Your task to perform on an android device: empty trash in the gmail app Image 0: 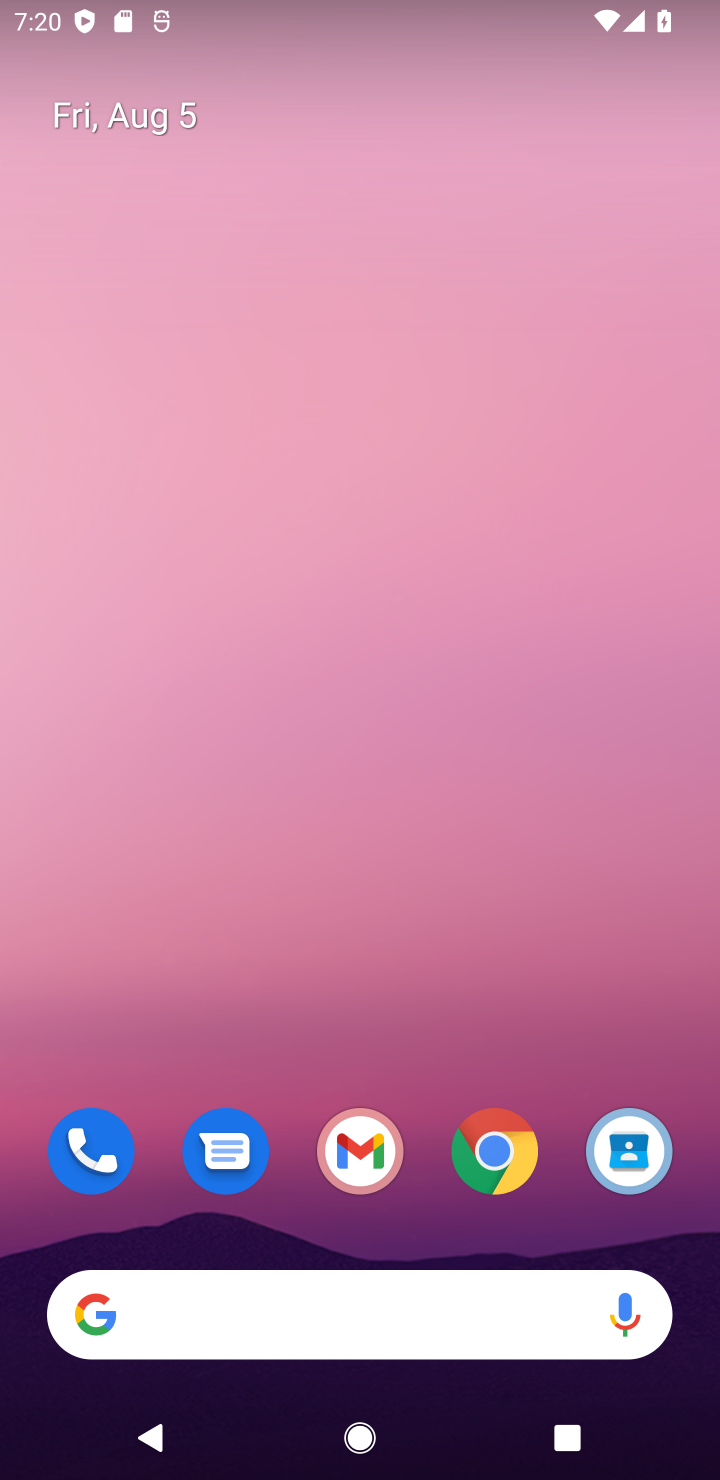
Step 0: drag from (358, 1277) to (292, 74)
Your task to perform on an android device: empty trash in the gmail app Image 1: 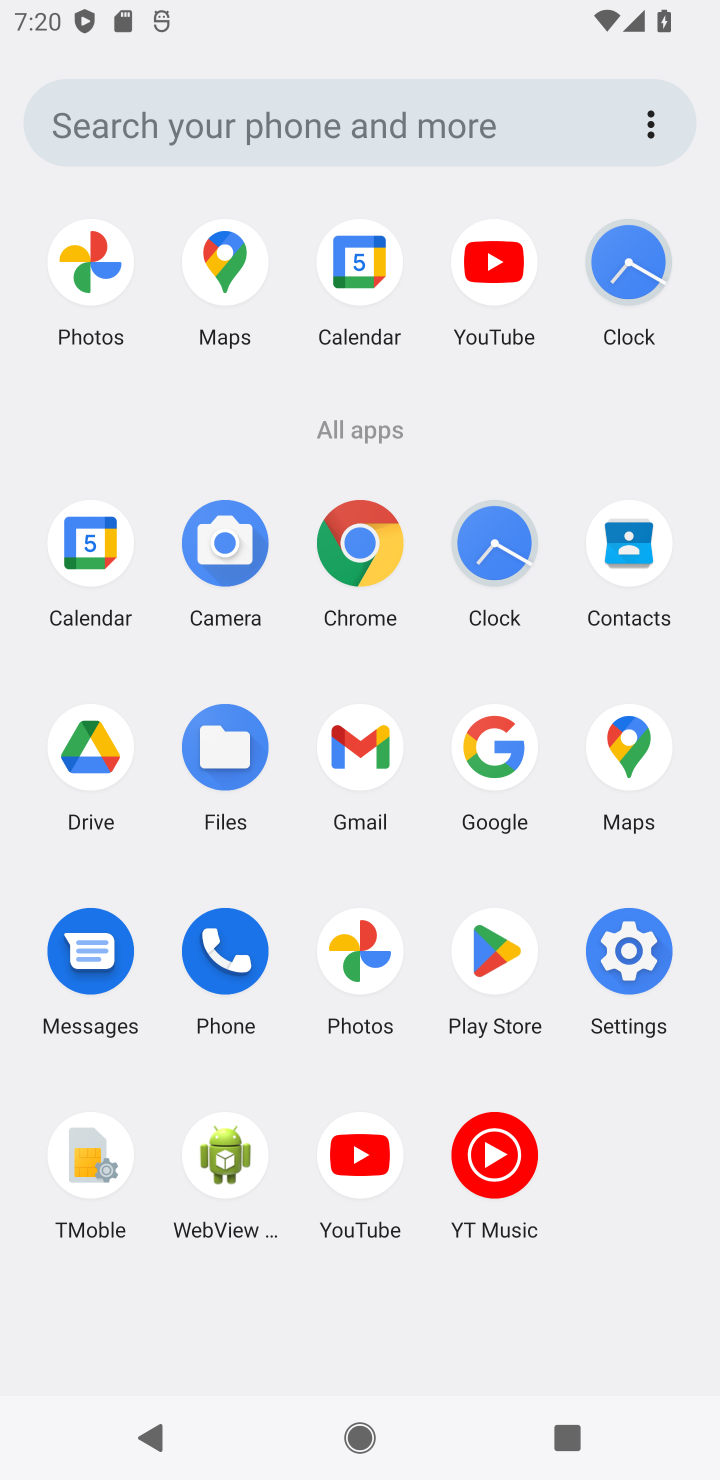
Step 1: click (364, 770)
Your task to perform on an android device: empty trash in the gmail app Image 2: 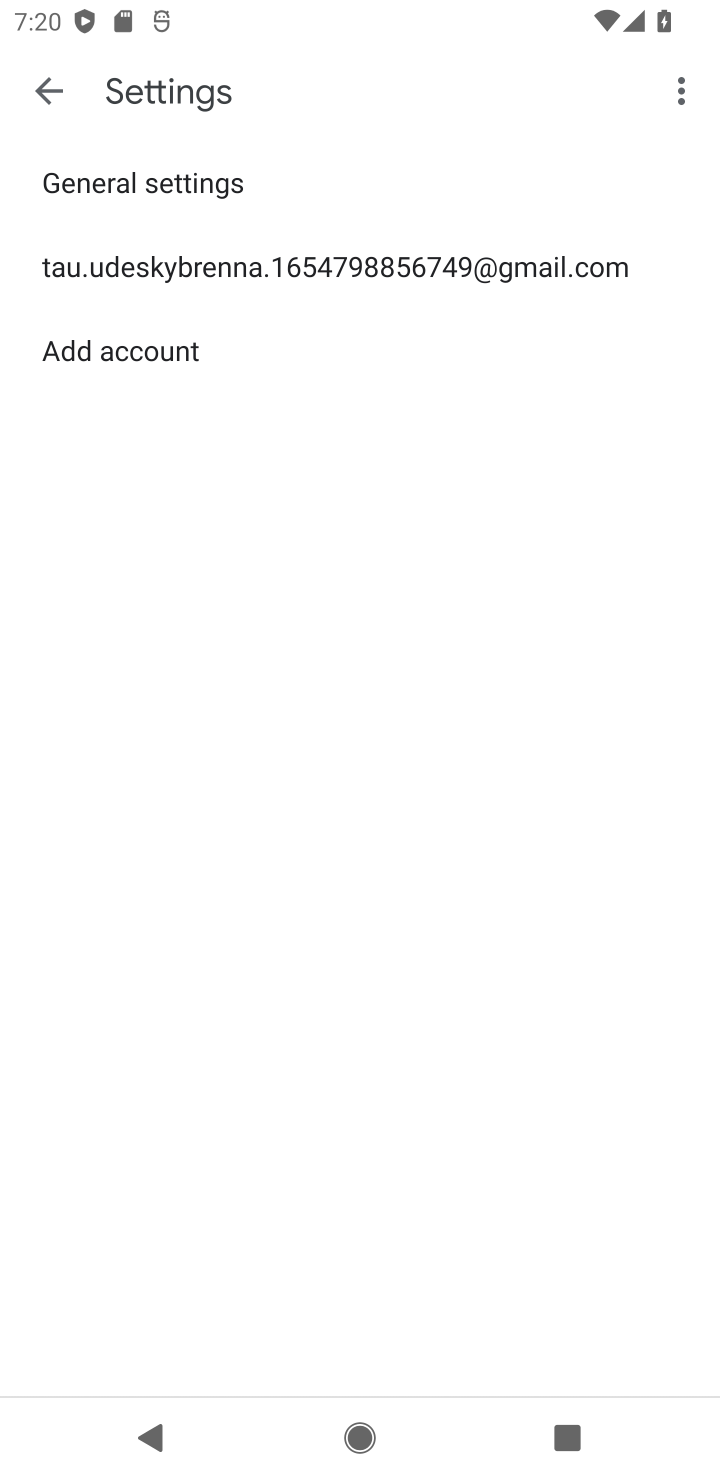
Step 2: click (30, 61)
Your task to perform on an android device: empty trash in the gmail app Image 3: 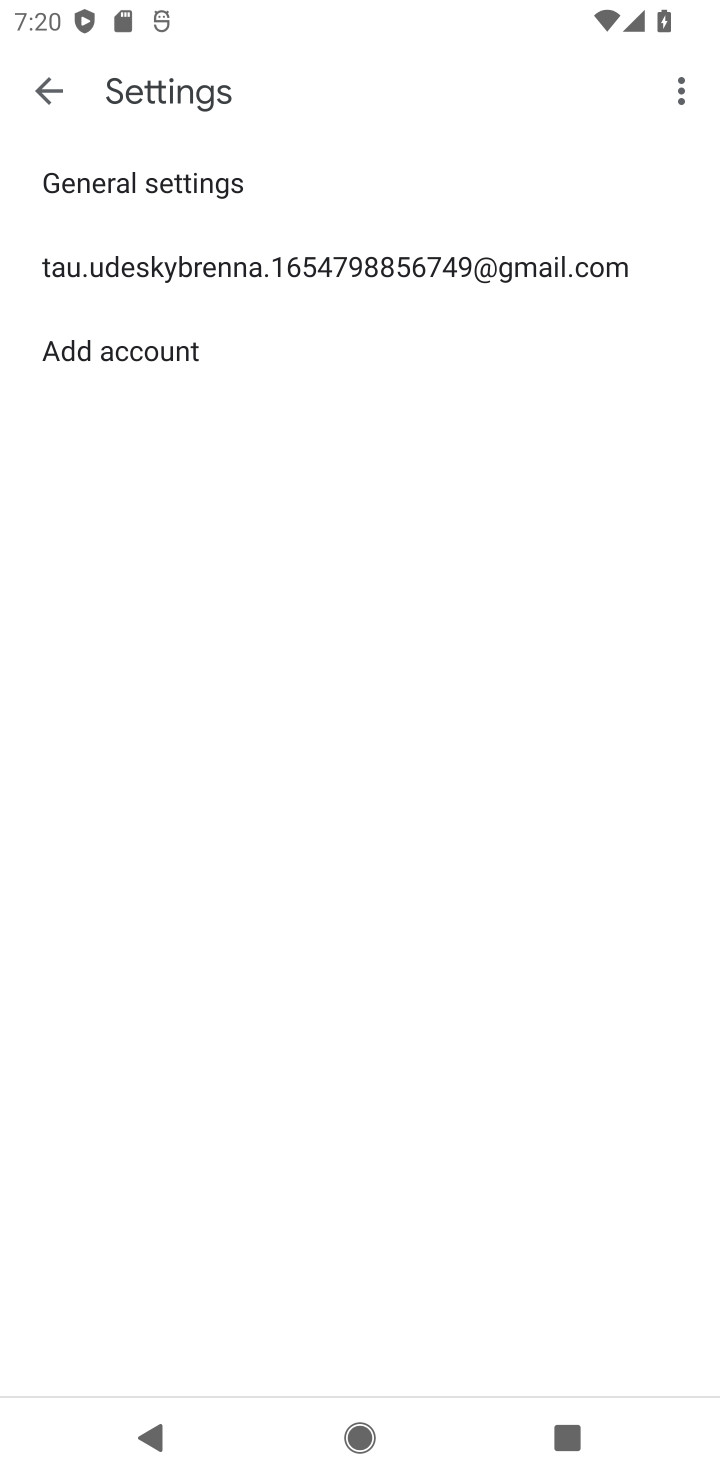
Step 3: click (55, 97)
Your task to perform on an android device: empty trash in the gmail app Image 4: 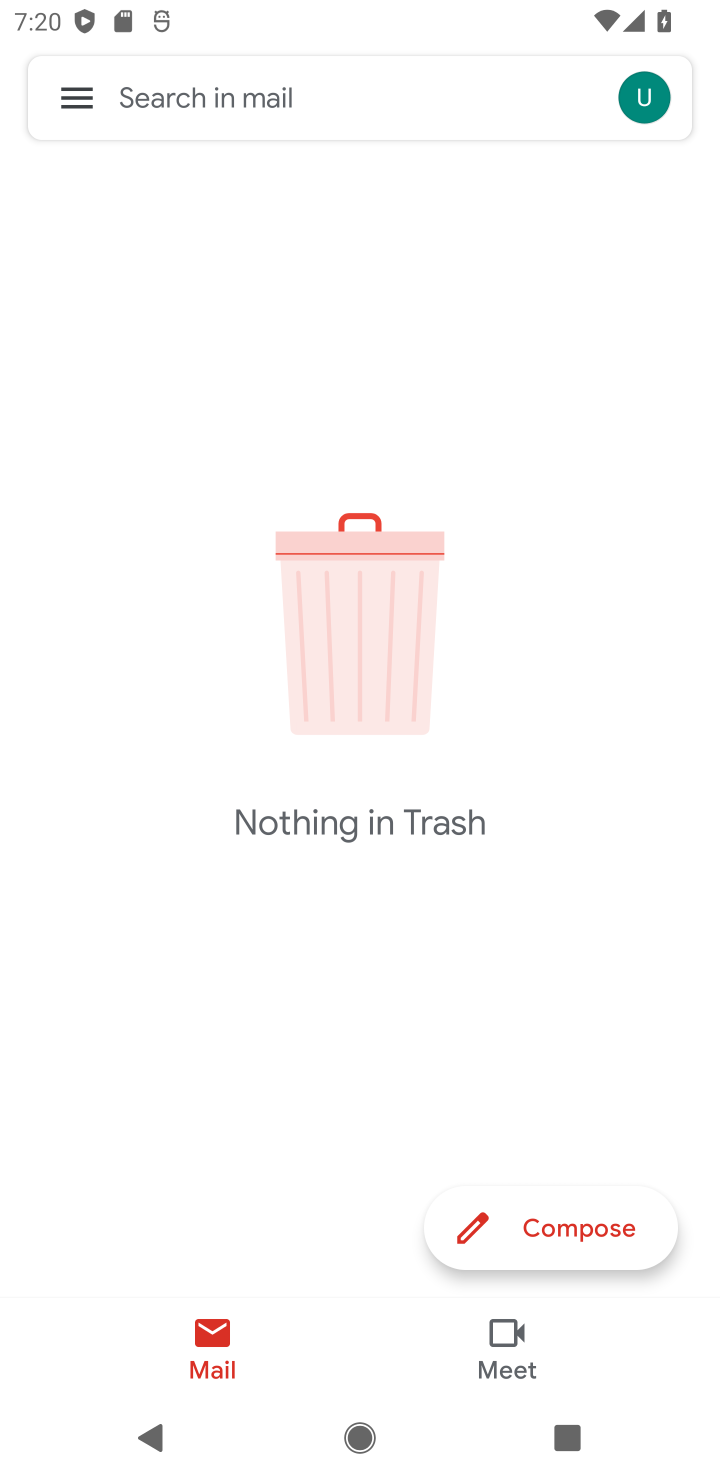
Step 4: click (55, 97)
Your task to perform on an android device: empty trash in the gmail app Image 5: 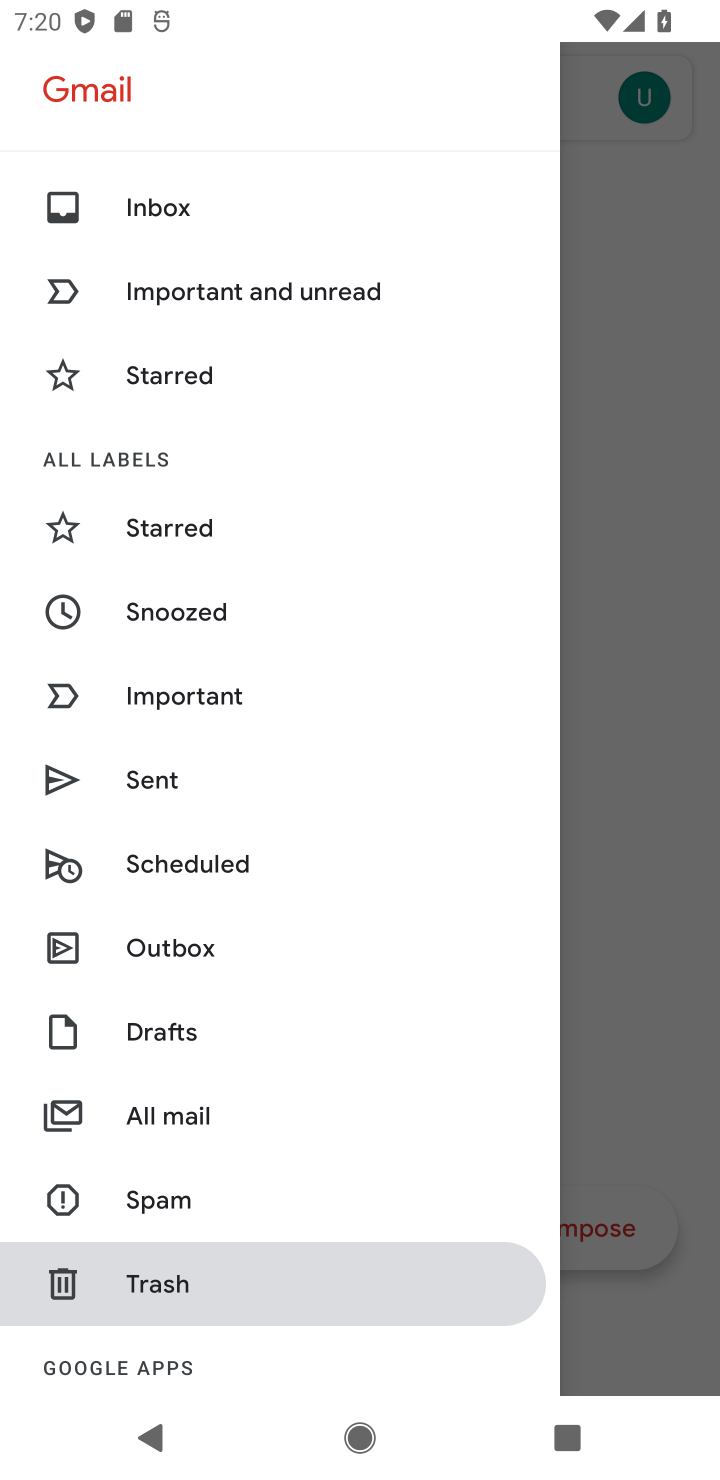
Step 5: click (149, 1286)
Your task to perform on an android device: empty trash in the gmail app Image 6: 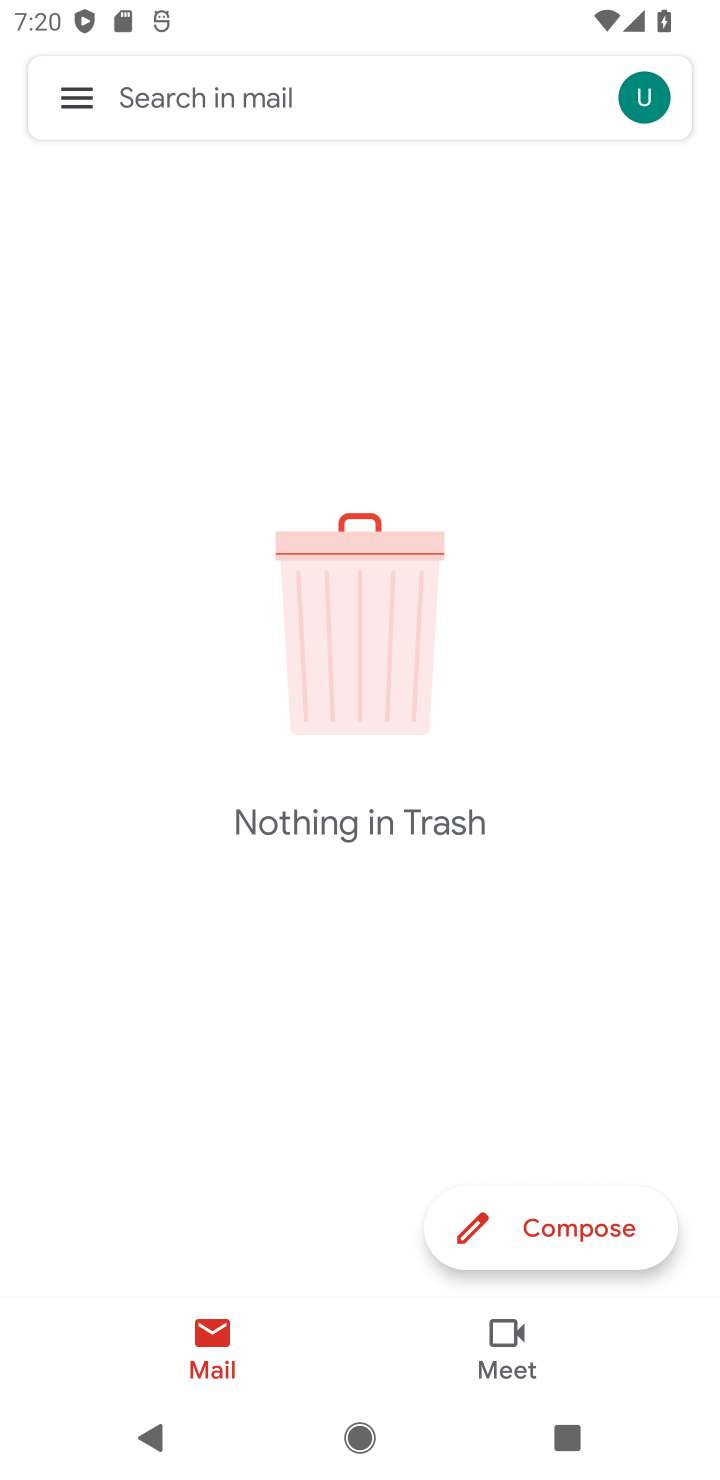
Step 6: task complete